Your task to perform on an android device: Add macbook air to the cart on walmart, then select checkout. Image 0: 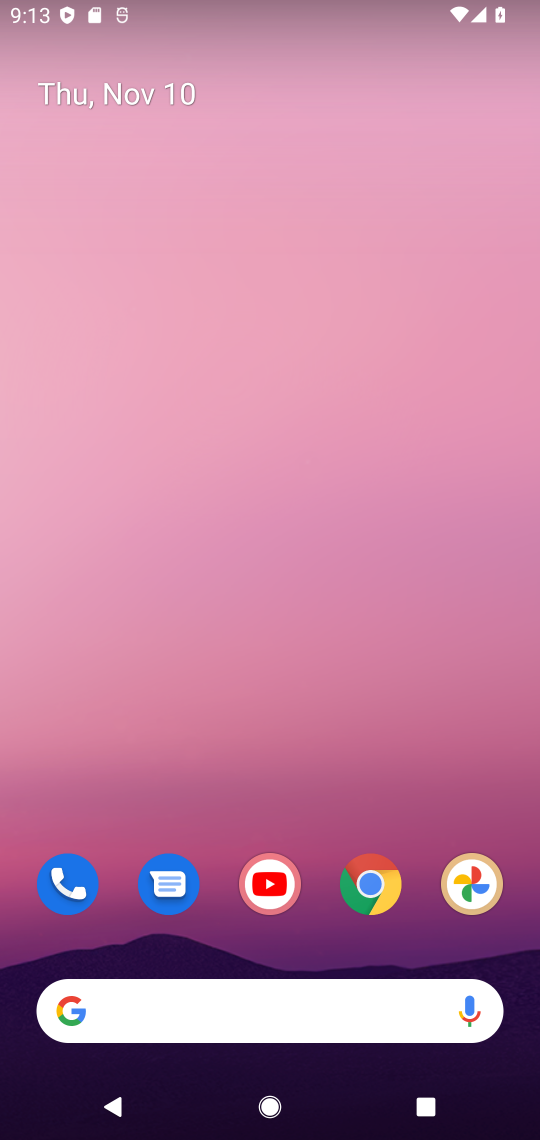
Step 0: click (230, 1011)
Your task to perform on an android device: Add macbook air to the cart on walmart, then select checkout. Image 1: 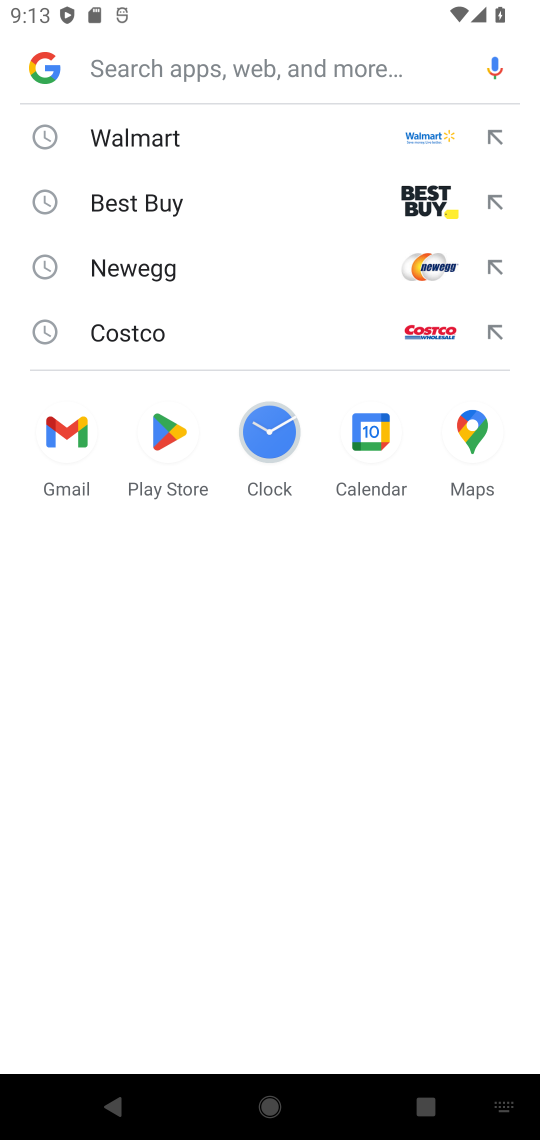
Step 1: click (216, 136)
Your task to perform on an android device: Add macbook air to the cart on walmart, then select checkout. Image 2: 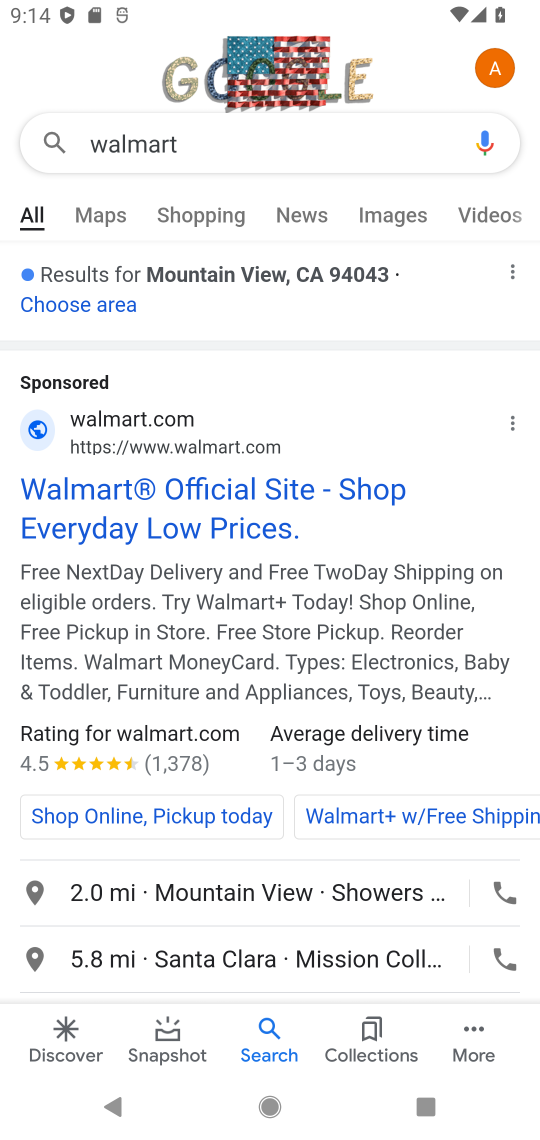
Step 2: click (99, 417)
Your task to perform on an android device: Add macbook air to the cart on walmart, then select checkout. Image 3: 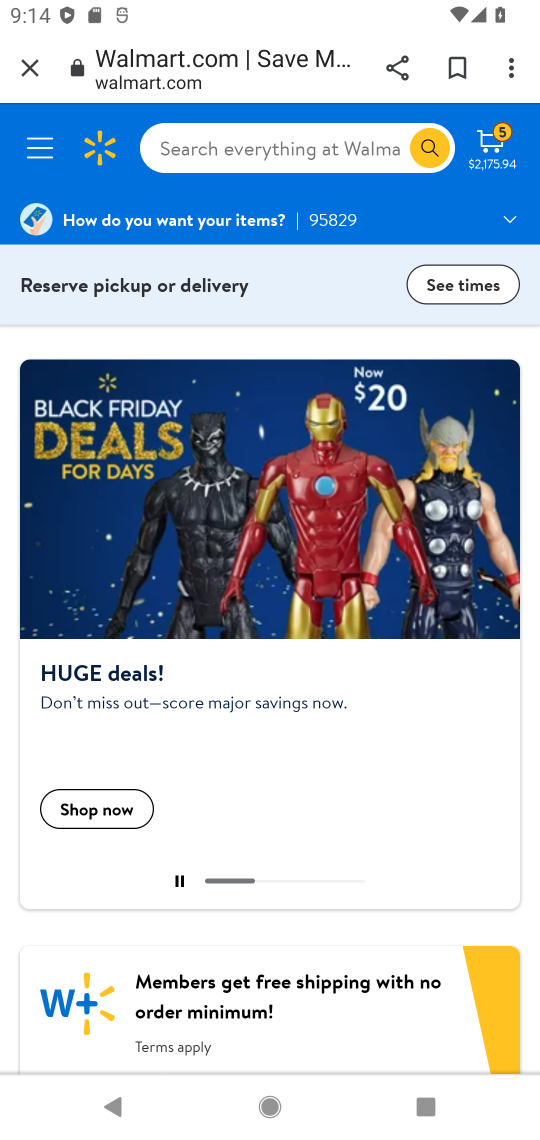
Step 3: click (260, 148)
Your task to perform on an android device: Add macbook air to the cart on walmart, then select checkout. Image 4: 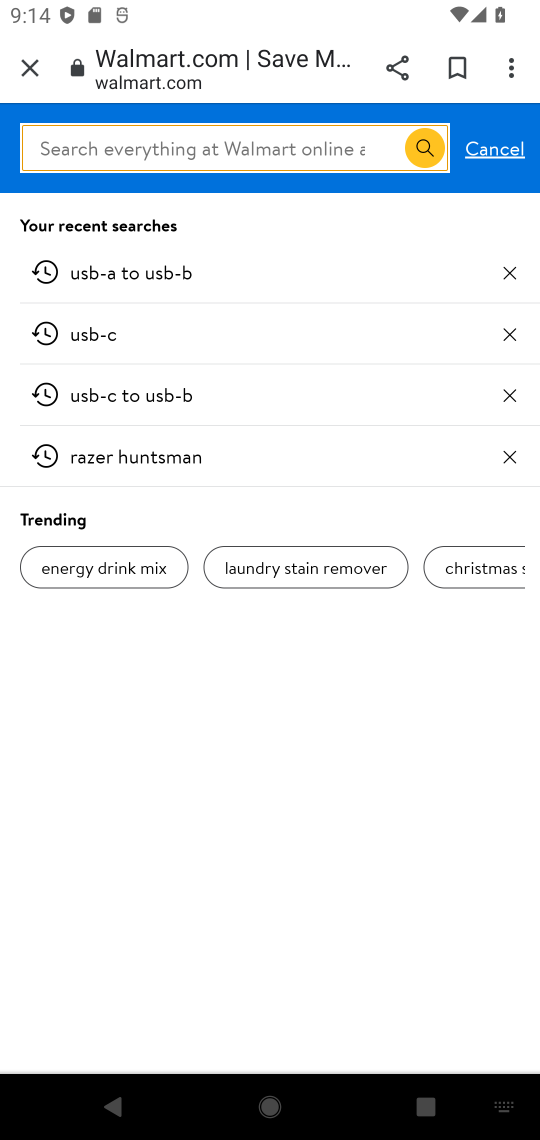
Step 4: type "macbook air"
Your task to perform on an android device: Add macbook air to the cart on walmart, then select checkout. Image 5: 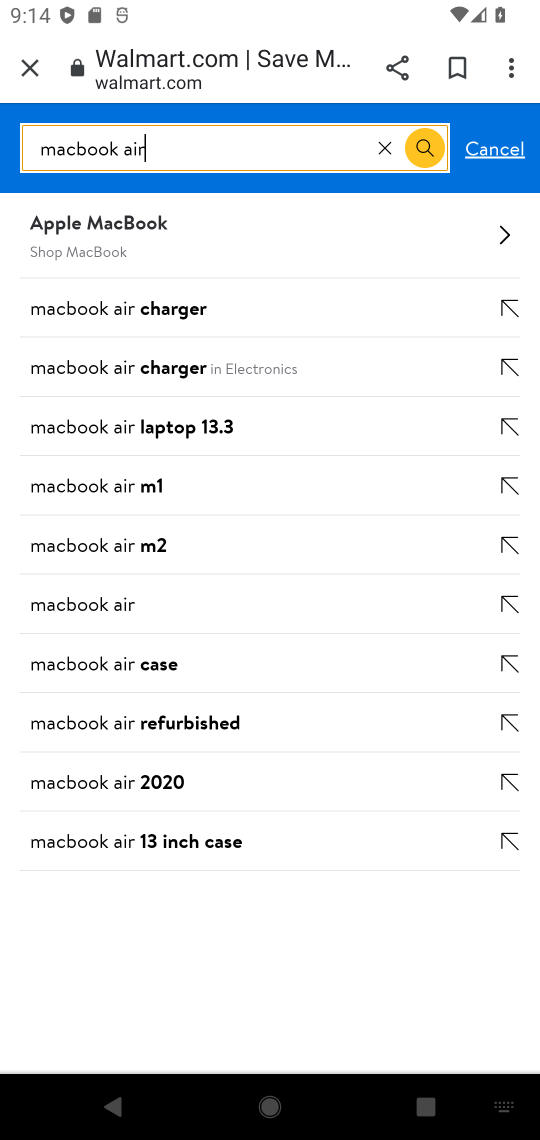
Step 5: click (68, 225)
Your task to perform on an android device: Add macbook air to the cart on walmart, then select checkout. Image 6: 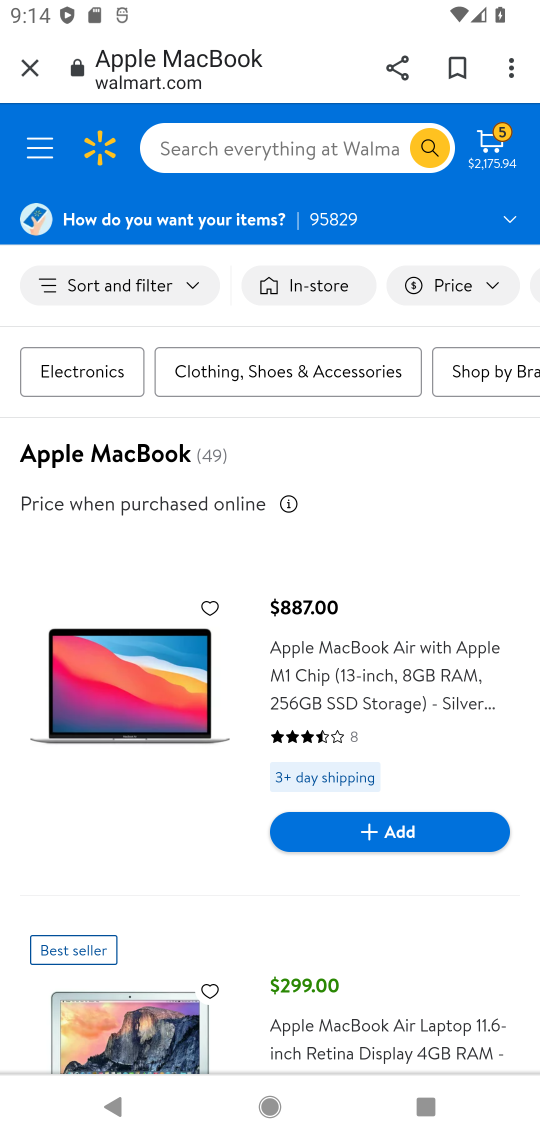
Step 6: click (386, 841)
Your task to perform on an android device: Add macbook air to the cart on walmart, then select checkout. Image 7: 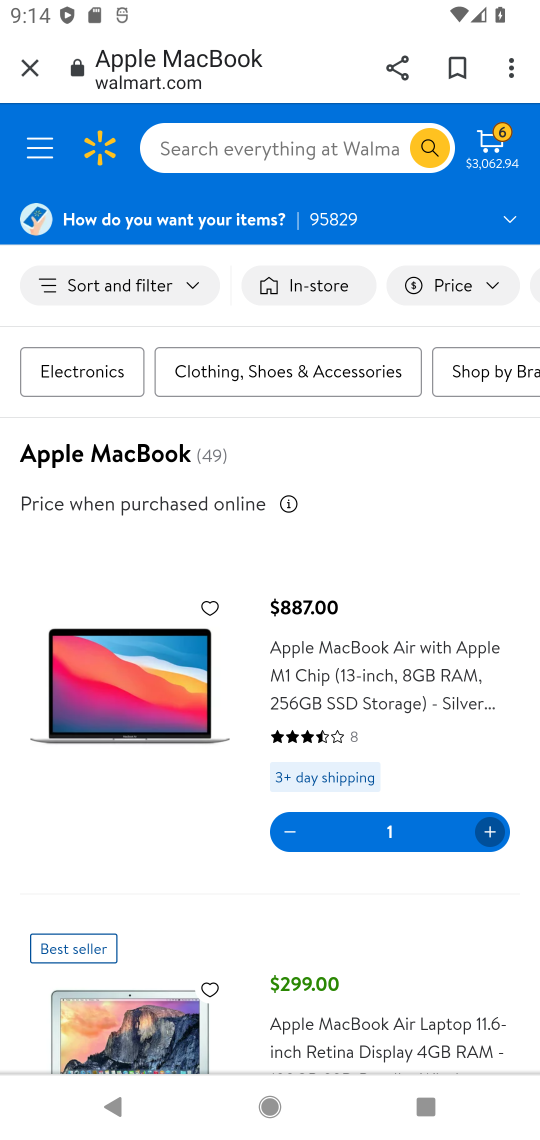
Step 7: click (495, 150)
Your task to perform on an android device: Add macbook air to the cart on walmart, then select checkout. Image 8: 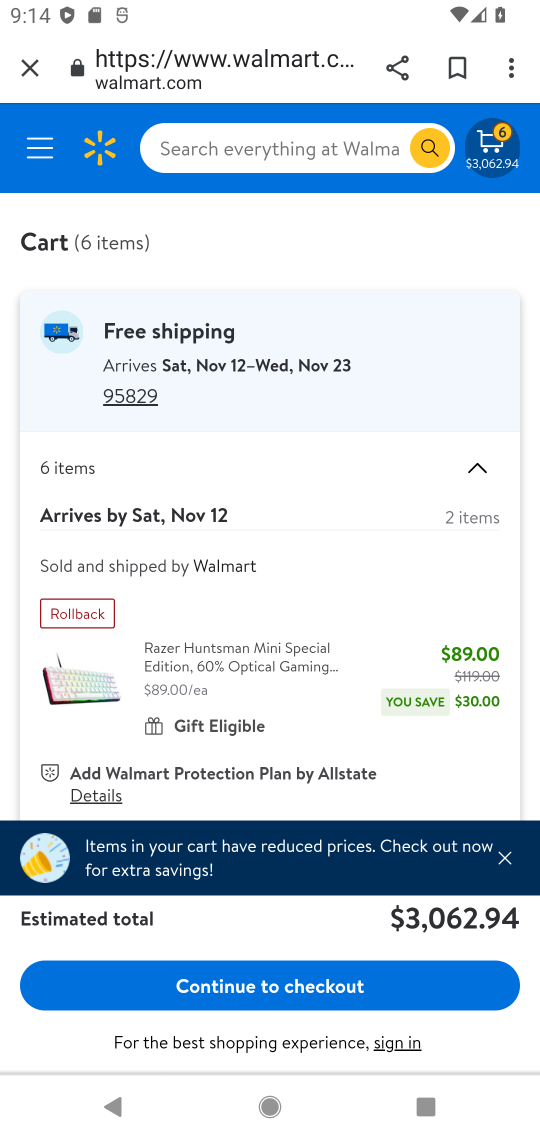
Step 8: click (296, 994)
Your task to perform on an android device: Add macbook air to the cart on walmart, then select checkout. Image 9: 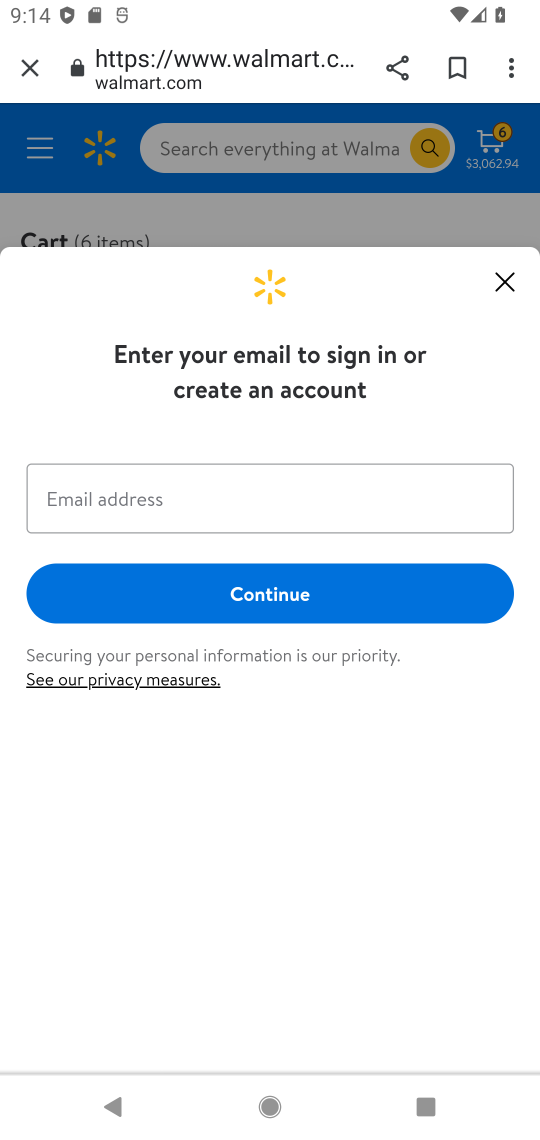
Step 9: task complete